Your task to perform on an android device: turn on improve location accuracy Image 0: 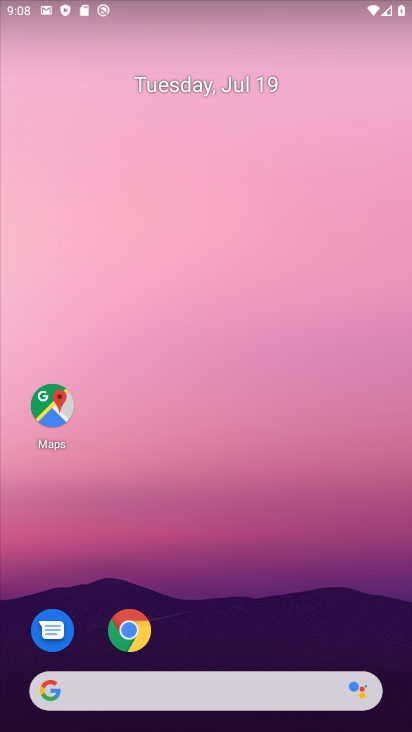
Step 0: click (86, 713)
Your task to perform on an android device: turn on improve location accuracy Image 1: 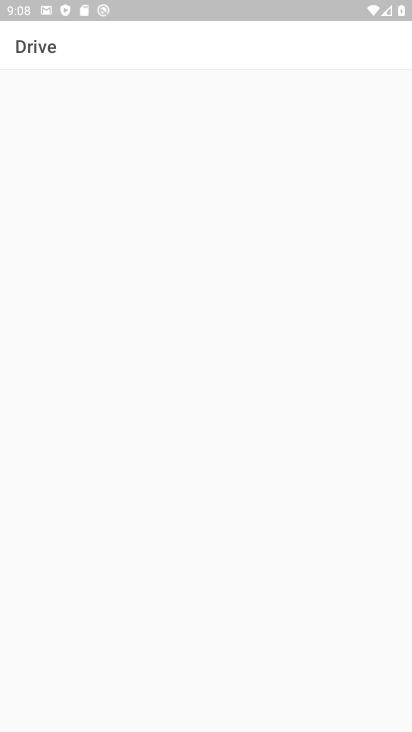
Step 1: press home button
Your task to perform on an android device: turn on improve location accuracy Image 2: 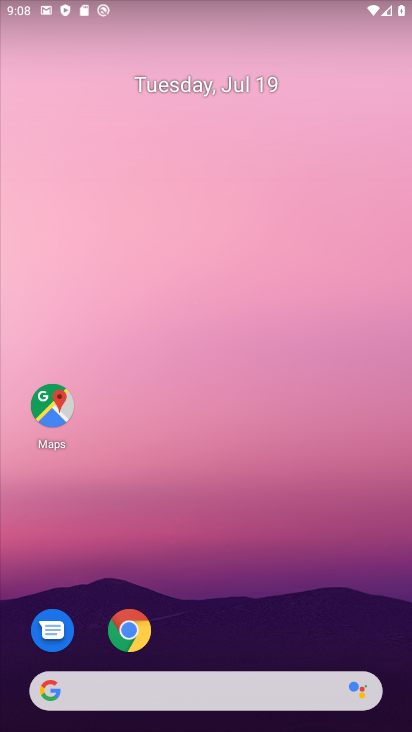
Step 2: drag from (70, 637) to (171, 171)
Your task to perform on an android device: turn on improve location accuracy Image 3: 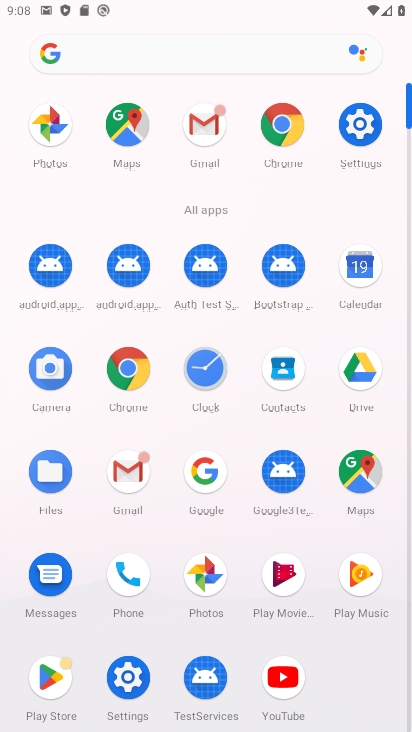
Step 3: click (134, 687)
Your task to perform on an android device: turn on improve location accuracy Image 4: 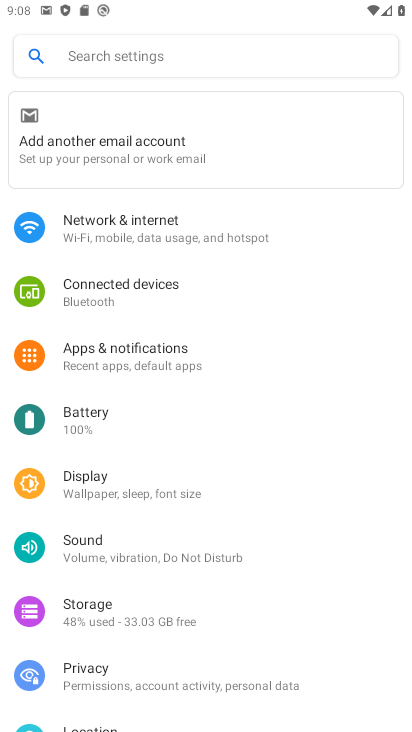
Step 4: drag from (316, 605) to (334, 237)
Your task to perform on an android device: turn on improve location accuracy Image 5: 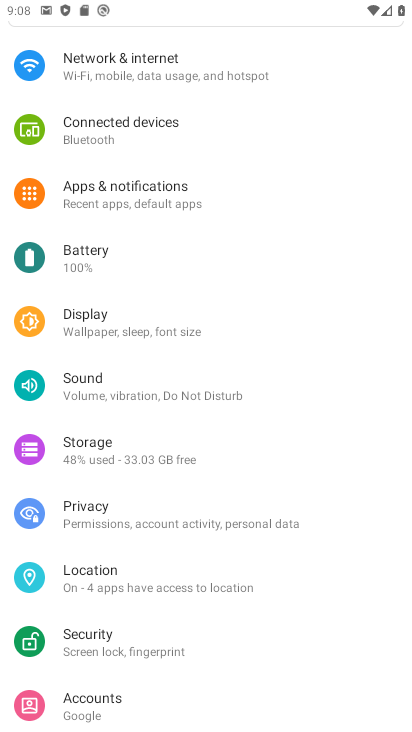
Step 5: click (130, 589)
Your task to perform on an android device: turn on improve location accuracy Image 6: 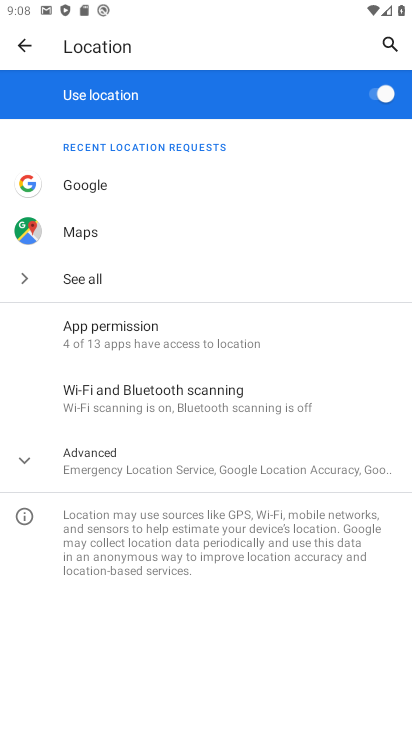
Step 6: task complete